Your task to perform on an android device: change timer sound Image 0: 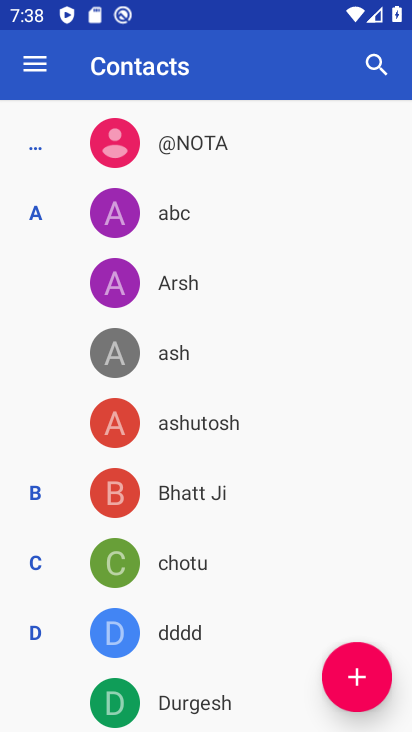
Step 0: press home button
Your task to perform on an android device: change timer sound Image 1: 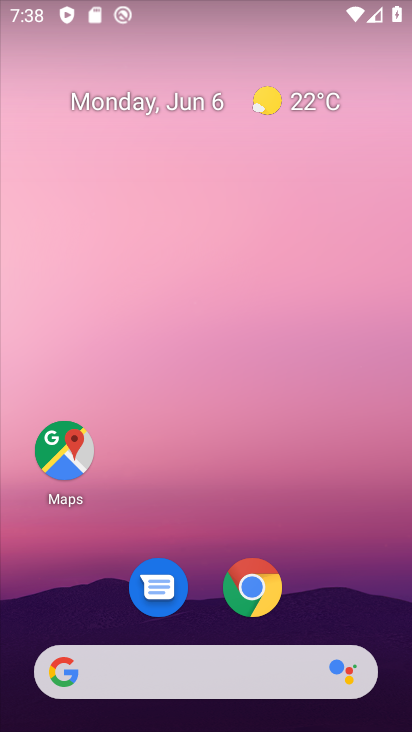
Step 1: drag from (194, 648) to (205, 220)
Your task to perform on an android device: change timer sound Image 2: 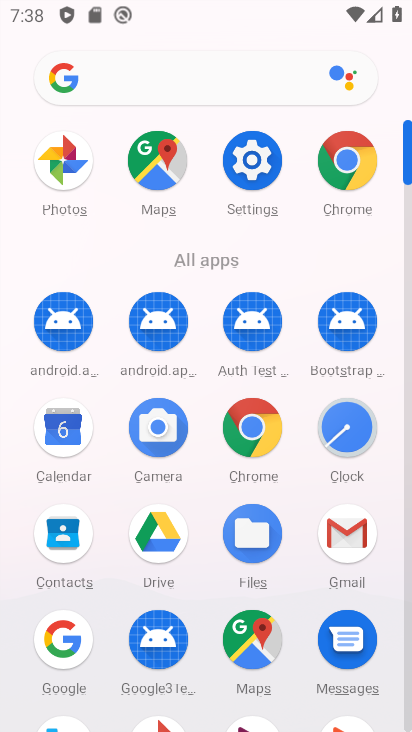
Step 2: click (349, 445)
Your task to perform on an android device: change timer sound Image 3: 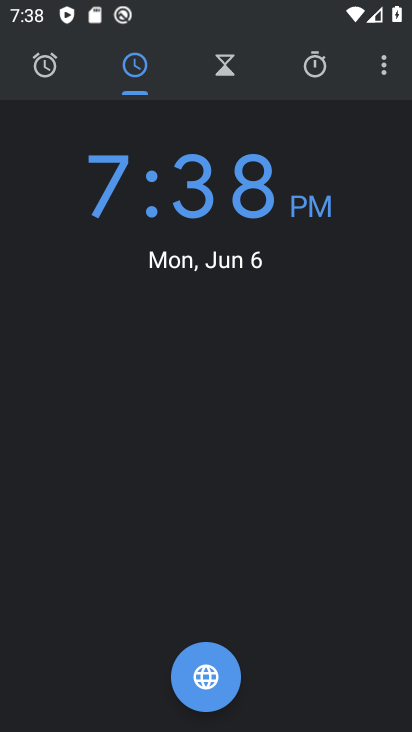
Step 3: click (379, 65)
Your task to perform on an android device: change timer sound Image 4: 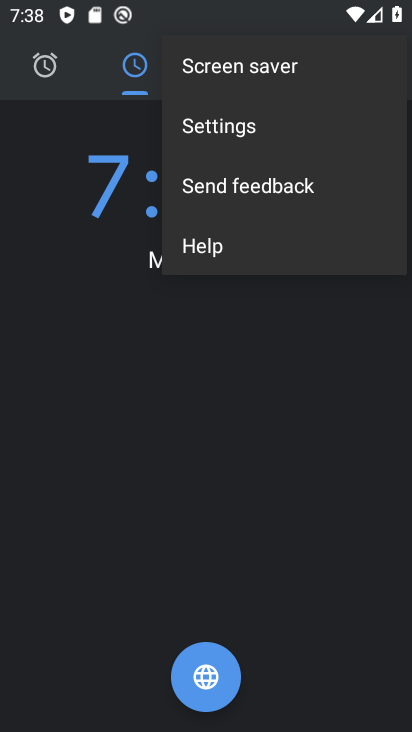
Step 4: click (248, 122)
Your task to perform on an android device: change timer sound Image 5: 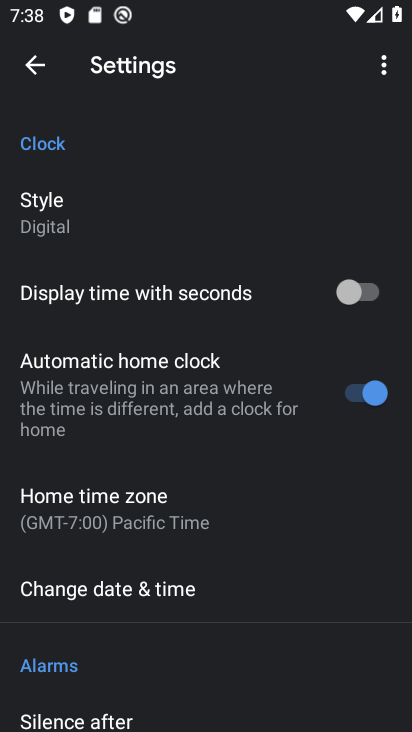
Step 5: drag from (182, 667) to (187, 336)
Your task to perform on an android device: change timer sound Image 6: 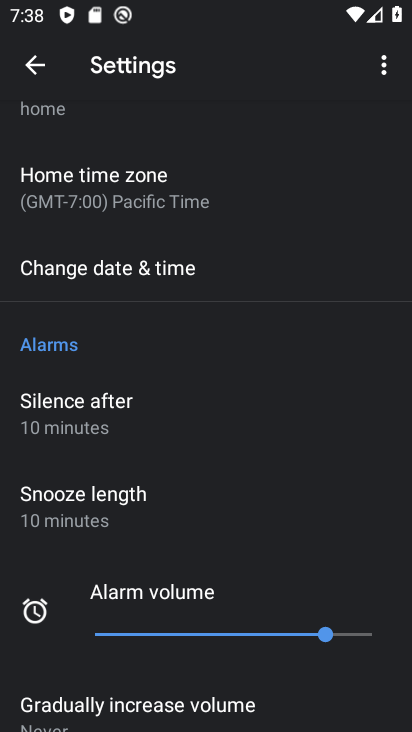
Step 6: drag from (153, 704) to (139, 341)
Your task to perform on an android device: change timer sound Image 7: 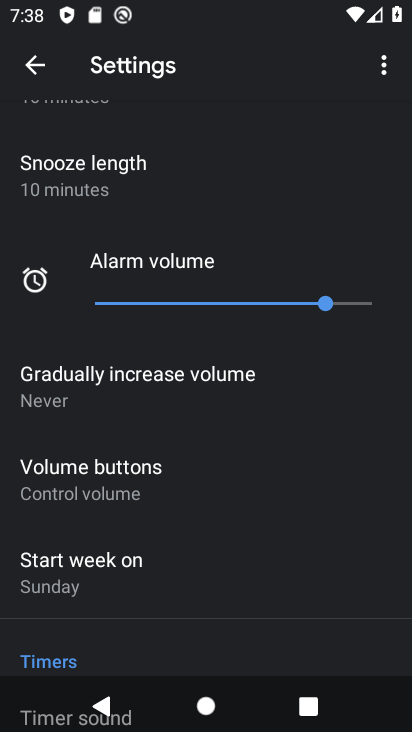
Step 7: drag from (114, 627) to (114, 361)
Your task to perform on an android device: change timer sound Image 8: 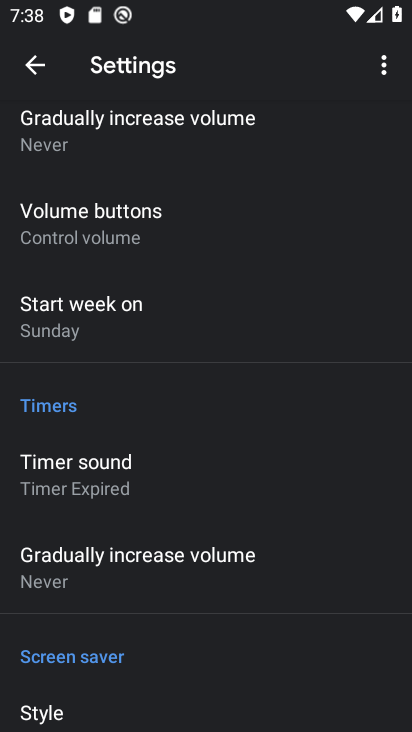
Step 8: click (95, 457)
Your task to perform on an android device: change timer sound Image 9: 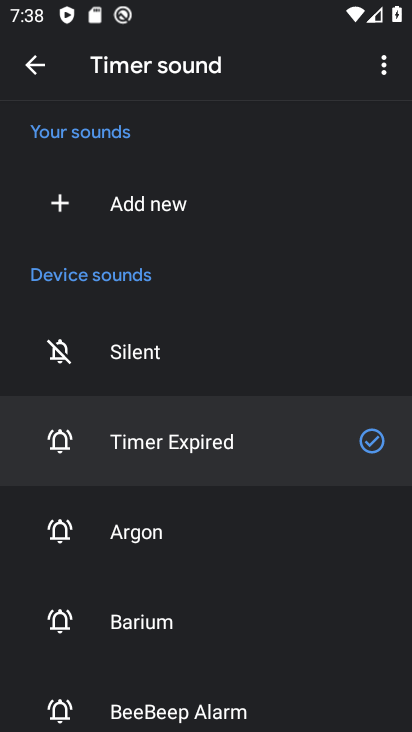
Step 9: click (129, 542)
Your task to perform on an android device: change timer sound Image 10: 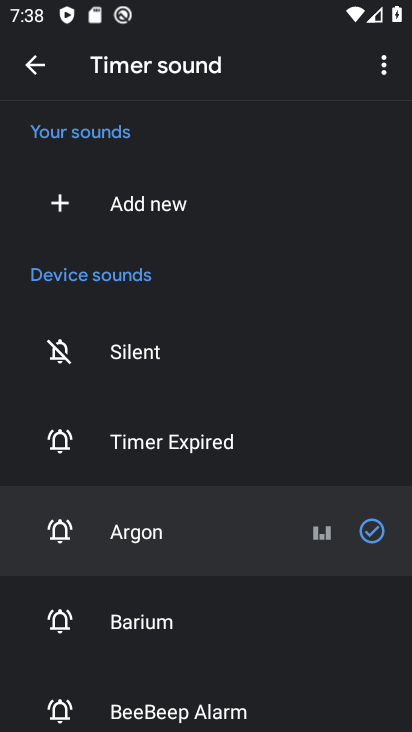
Step 10: task complete